Your task to perform on an android device: add a contact Image 0: 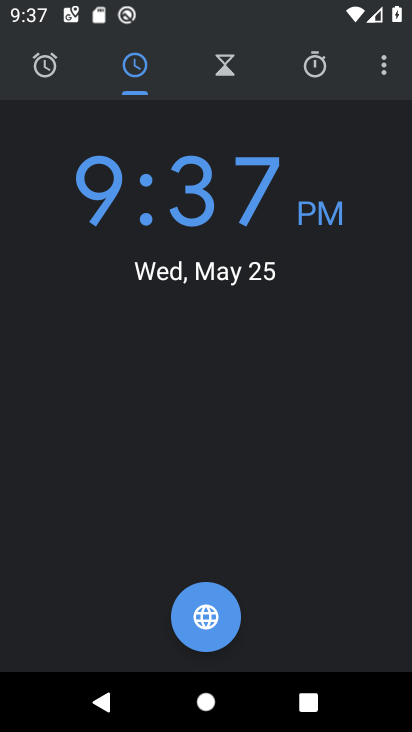
Step 0: press home button
Your task to perform on an android device: add a contact Image 1: 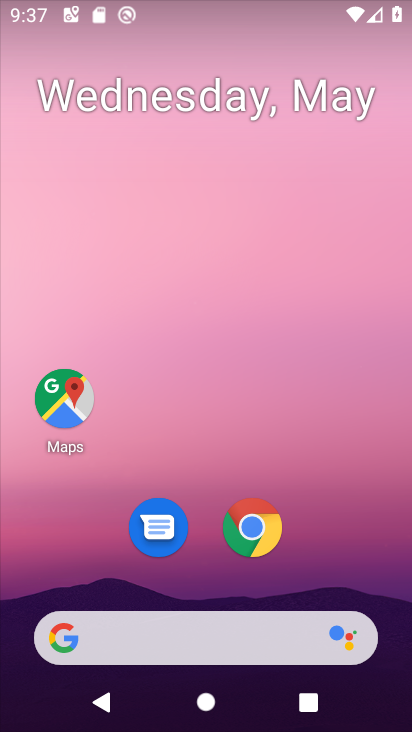
Step 1: drag from (190, 531) to (200, 96)
Your task to perform on an android device: add a contact Image 2: 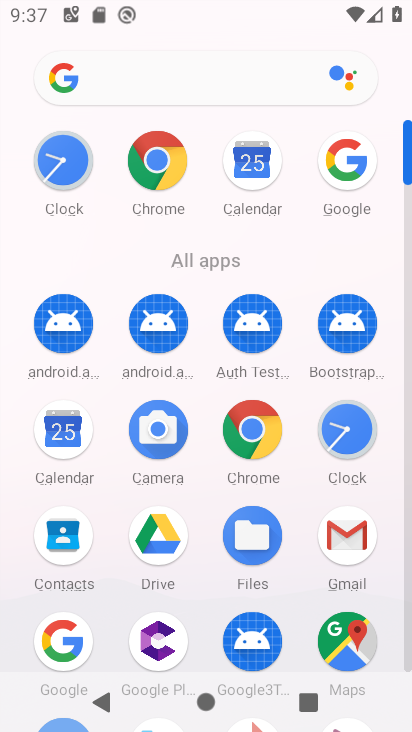
Step 2: click (62, 537)
Your task to perform on an android device: add a contact Image 3: 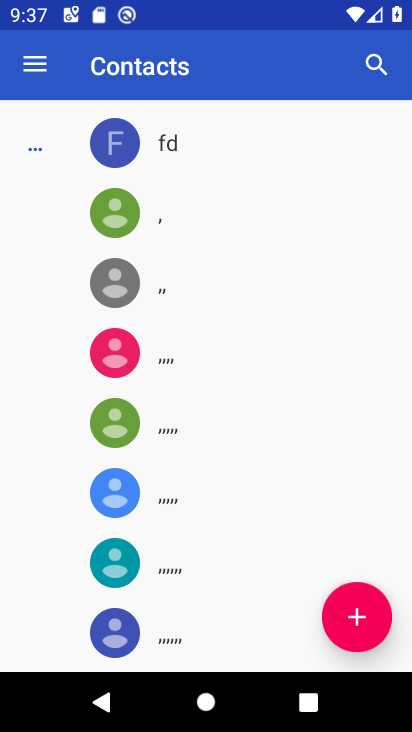
Step 3: click (363, 612)
Your task to perform on an android device: add a contact Image 4: 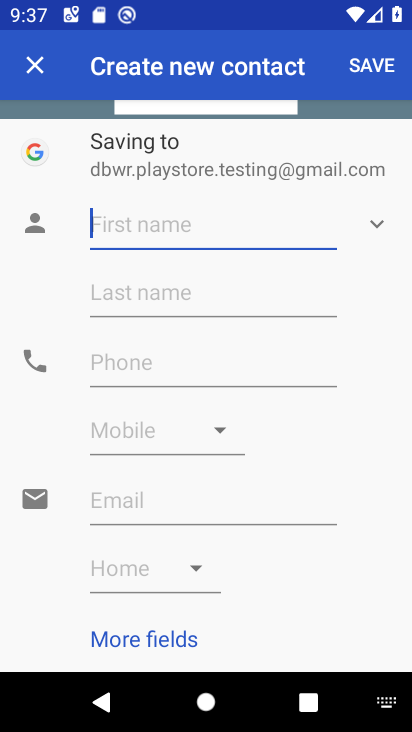
Step 4: type "hgdmh"
Your task to perform on an android device: add a contact Image 5: 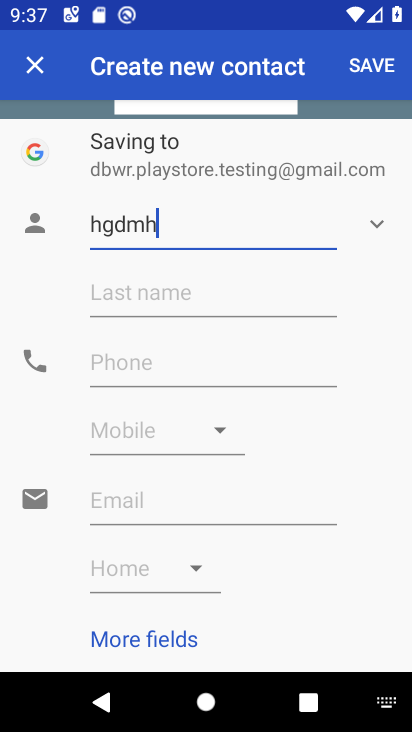
Step 5: click (353, 65)
Your task to perform on an android device: add a contact Image 6: 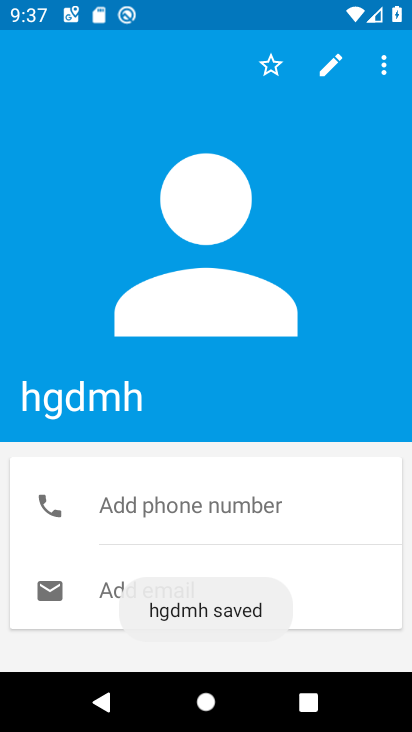
Step 6: task complete